Your task to perform on an android device: Open Reddit.com Image 0: 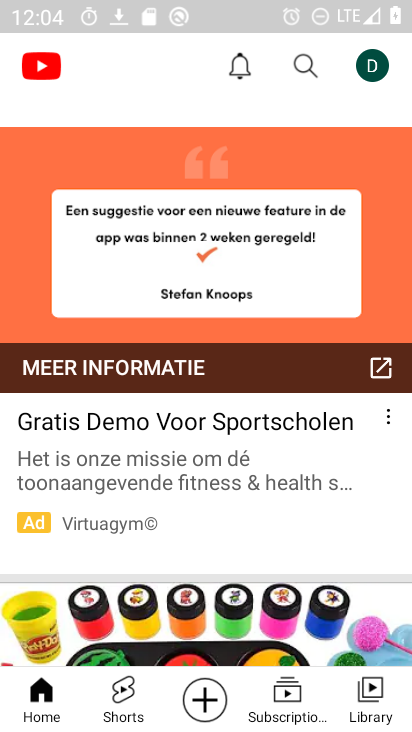
Step 0: press home button
Your task to perform on an android device: Open Reddit.com Image 1: 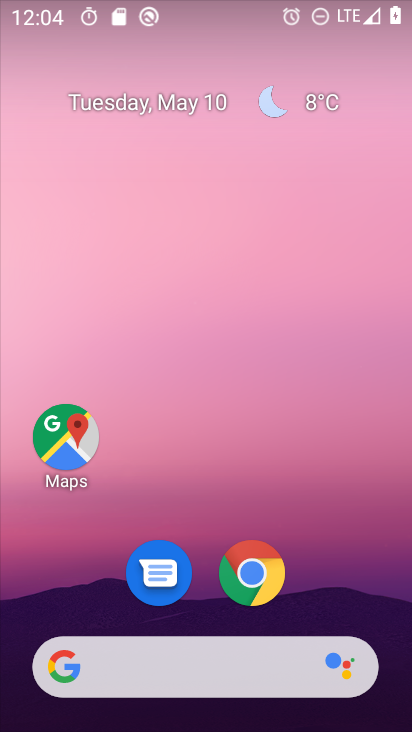
Step 1: click (255, 562)
Your task to perform on an android device: Open Reddit.com Image 2: 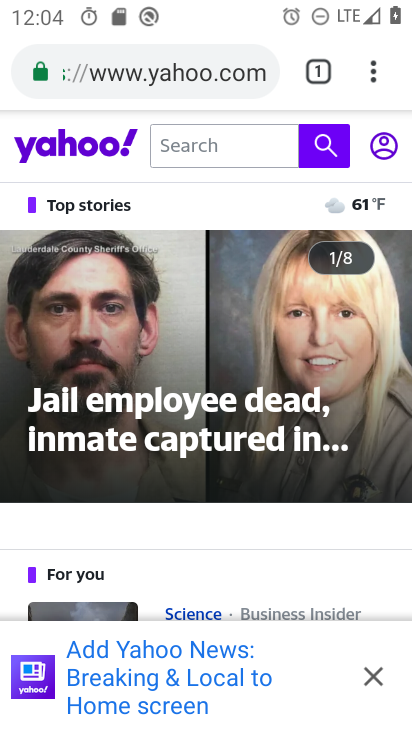
Step 2: click (171, 68)
Your task to perform on an android device: Open Reddit.com Image 3: 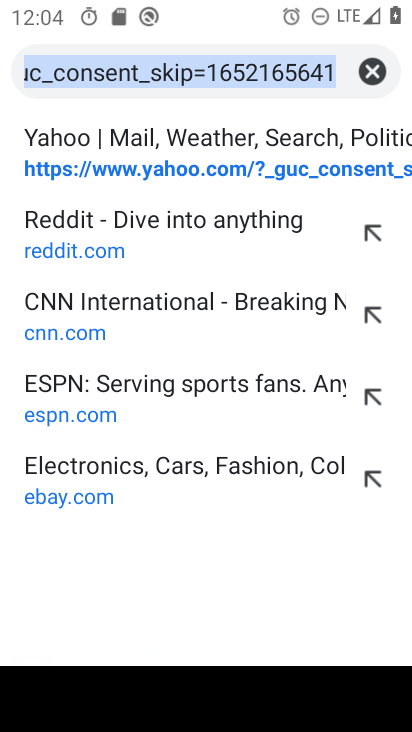
Step 3: type "reddit.com"
Your task to perform on an android device: Open Reddit.com Image 4: 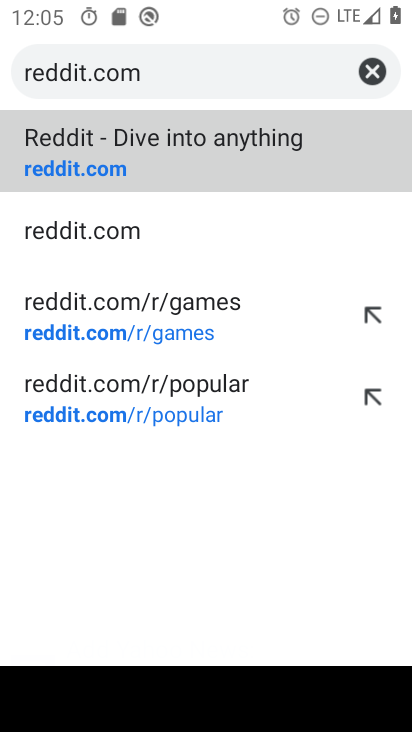
Step 4: click (90, 162)
Your task to perform on an android device: Open Reddit.com Image 5: 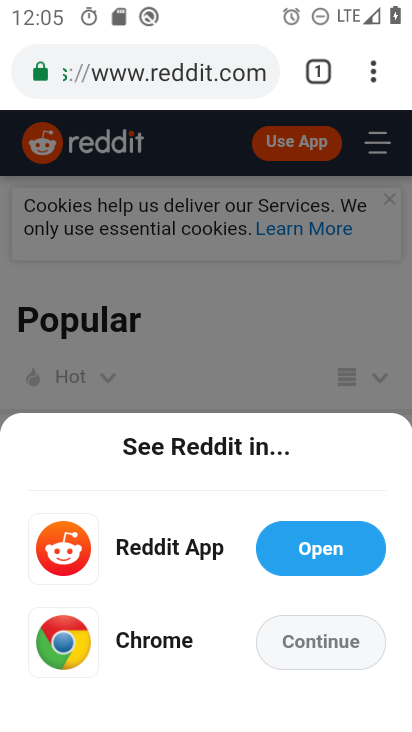
Step 5: task complete